Your task to perform on an android device: Go to display settings Image 0: 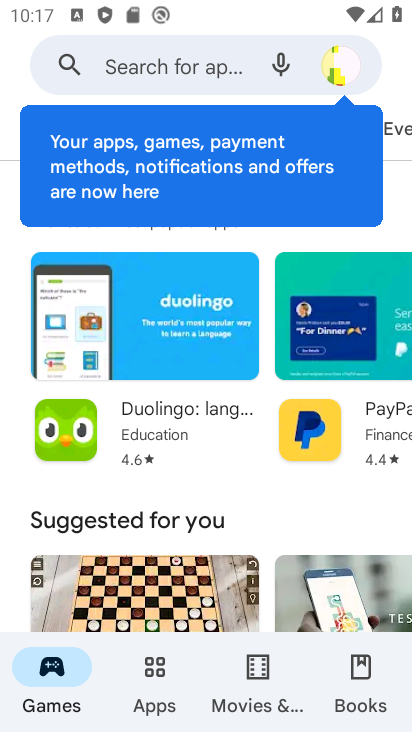
Step 0: press home button
Your task to perform on an android device: Go to display settings Image 1: 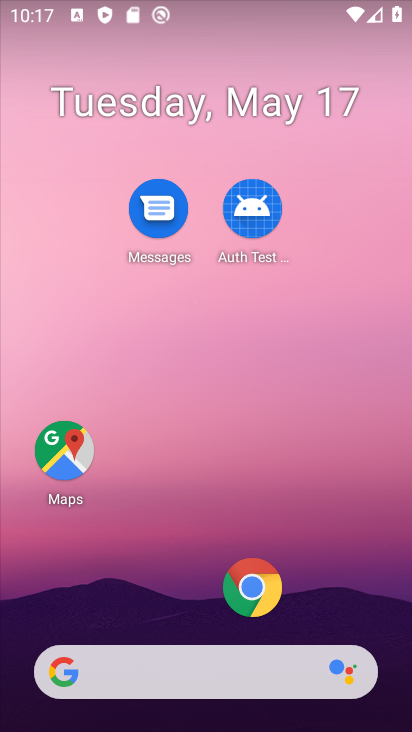
Step 1: drag from (177, 584) to (182, 102)
Your task to perform on an android device: Go to display settings Image 2: 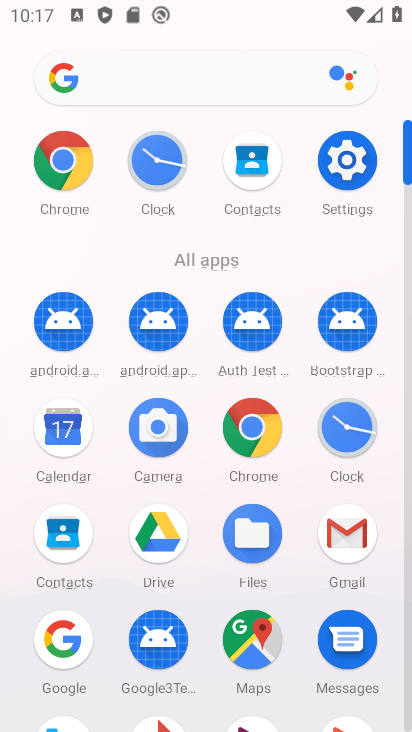
Step 2: click (349, 193)
Your task to perform on an android device: Go to display settings Image 3: 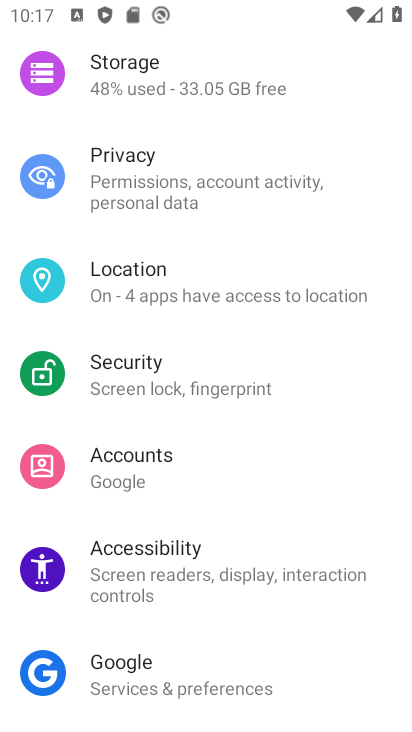
Step 3: drag from (152, 208) to (190, 635)
Your task to perform on an android device: Go to display settings Image 4: 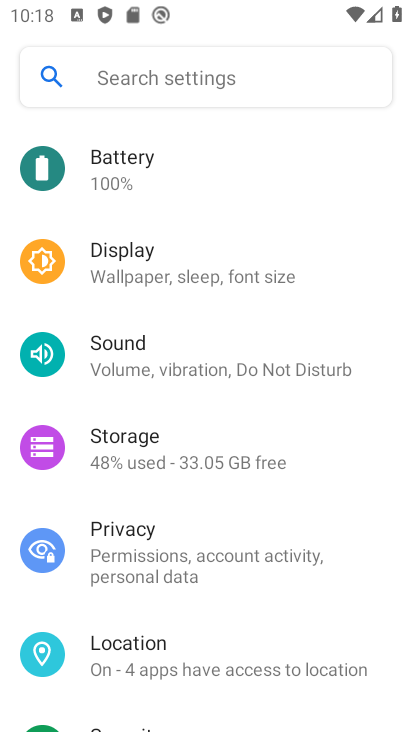
Step 4: click (172, 296)
Your task to perform on an android device: Go to display settings Image 5: 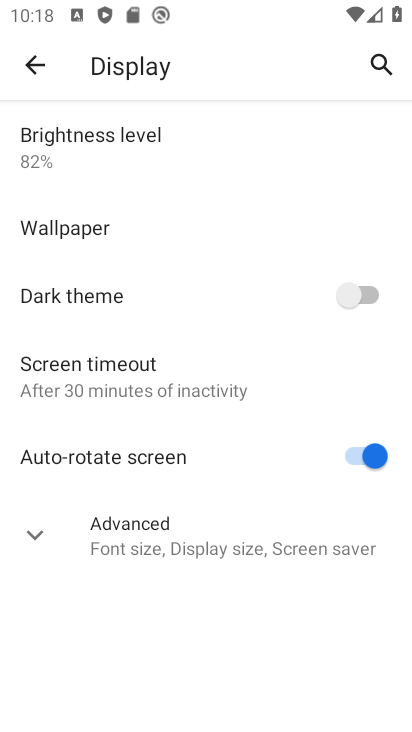
Step 5: task complete